Your task to perform on an android device: turn notification dots on Image 0: 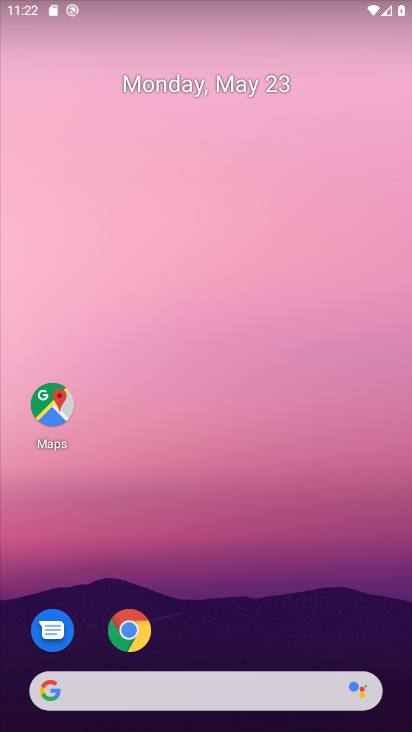
Step 0: drag from (216, 634) to (409, 98)
Your task to perform on an android device: turn notification dots on Image 1: 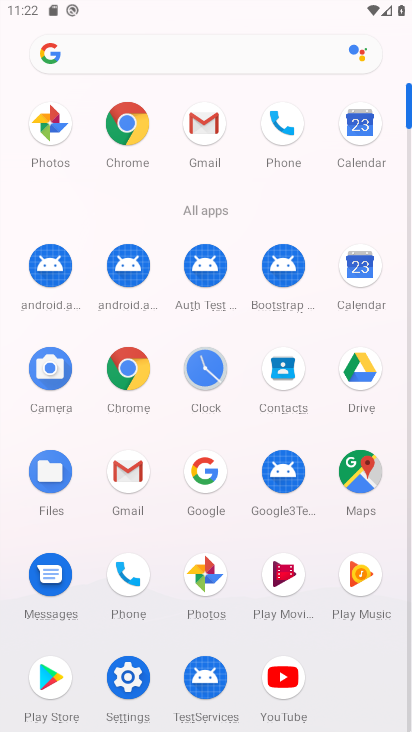
Step 1: click (135, 671)
Your task to perform on an android device: turn notification dots on Image 2: 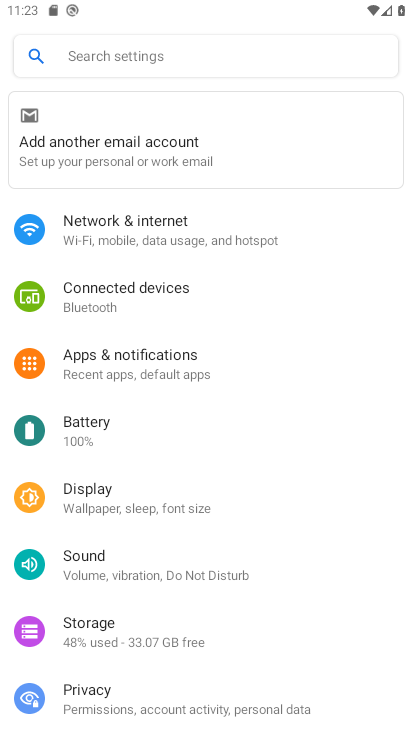
Step 2: click (172, 367)
Your task to perform on an android device: turn notification dots on Image 3: 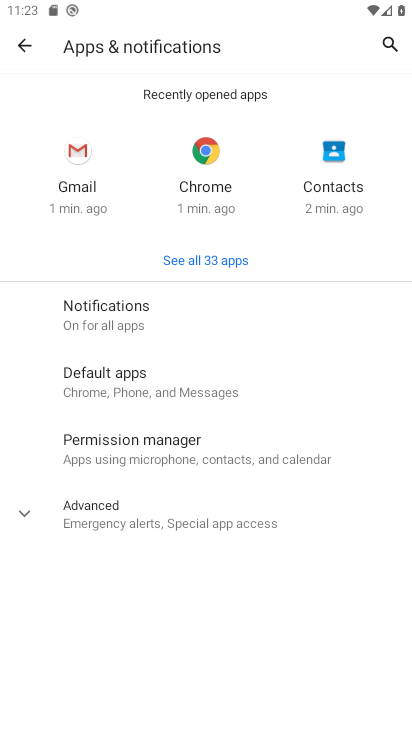
Step 3: click (117, 318)
Your task to perform on an android device: turn notification dots on Image 4: 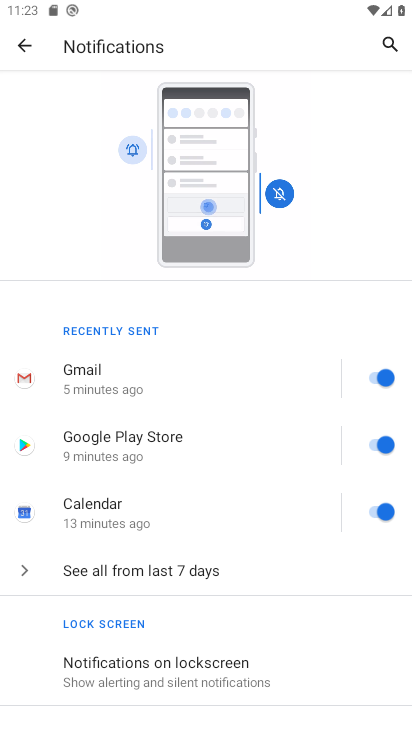
Step 4: drag from (104, 627) to (276, 158)
Your task to perform on an android device: turn notification dots on Image 5: 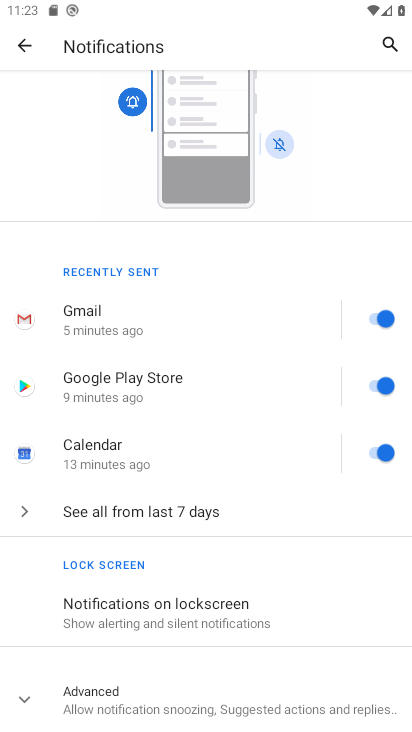
Step 5: click (80, 688)
Your task to perform on an android device: turn notification dots on Image 6: 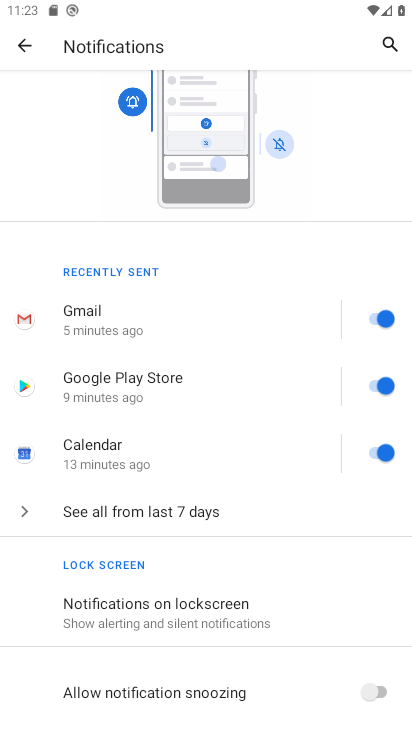
Step 6: task complete